Your task to perform on an android device: Open internet settings Image 0: 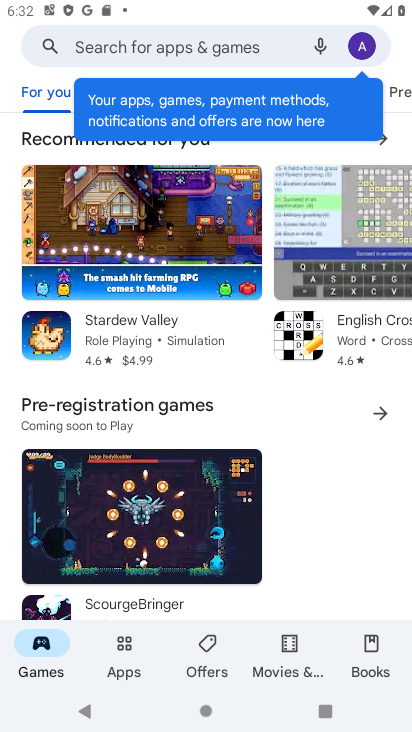
Step 0: press home button
Your task to perform on an android device: Open internet settings Image 1: 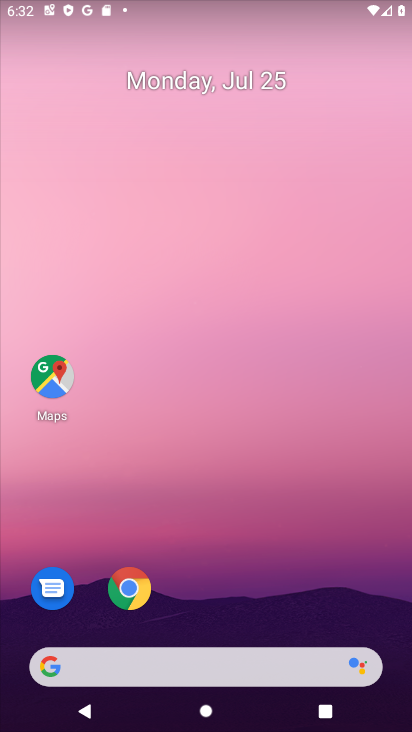
Step 1: drag from (266, 558) to (290, 142)
Your task to perform on an android device: Open internet settings Image 2: 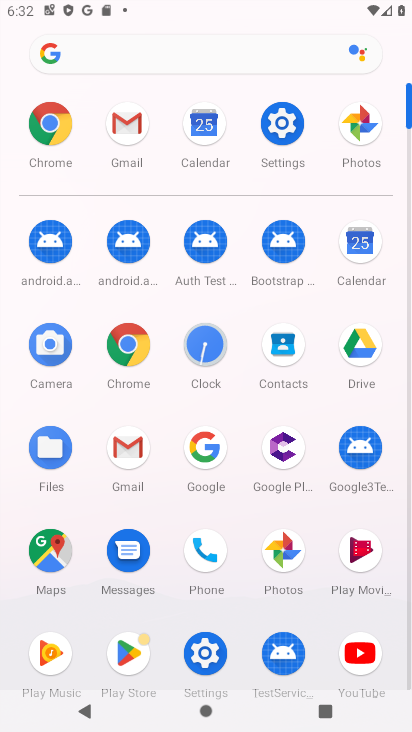
Step 2: click (203, 651)
Your task to perform on an android device: Open internet settings Image 3: 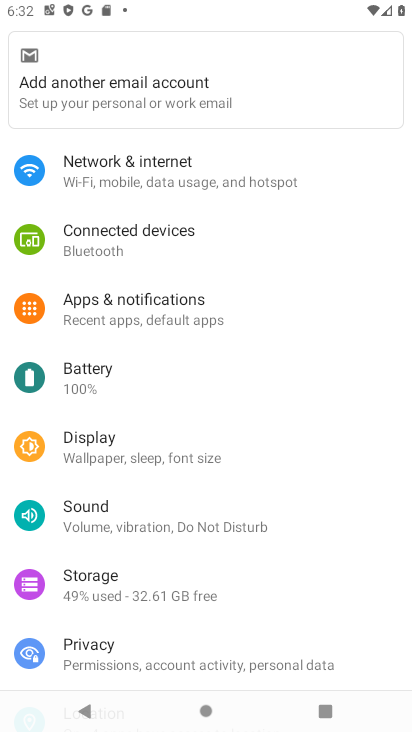
Step 3: click (204, 169)
Your task to perform on an android device: Open internet settings Image 4: 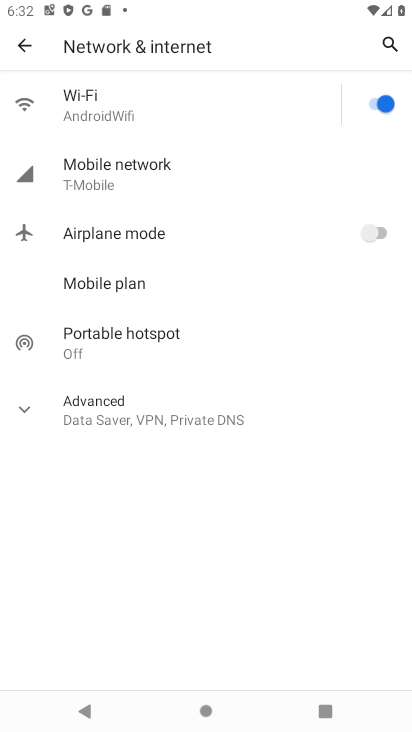
Step 4: task complete